Your task to perform on an android device: Search for seafood restaurants on Google Maps Image 0: 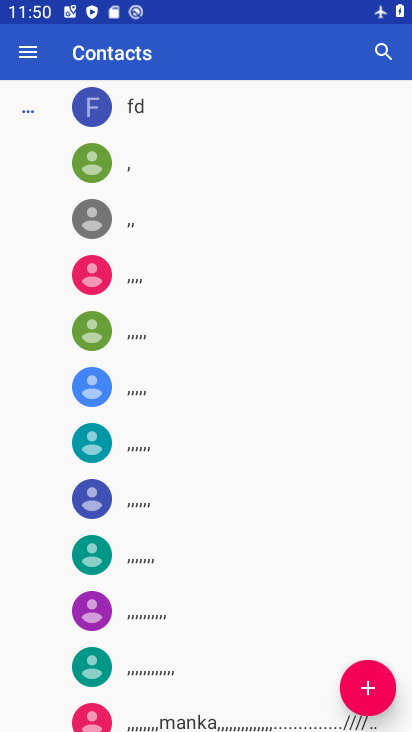
Step 0: press home button
Your task to perform on an android device: Search for seafood restaurants on Google Maps Image 1: 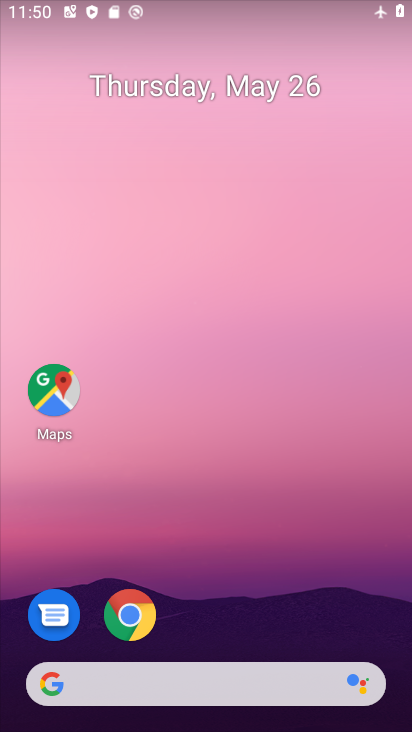
Step 1: click (48, 395)
Your task to perform on an android device: Search for seafood restaurants on Google Maps Image 2: 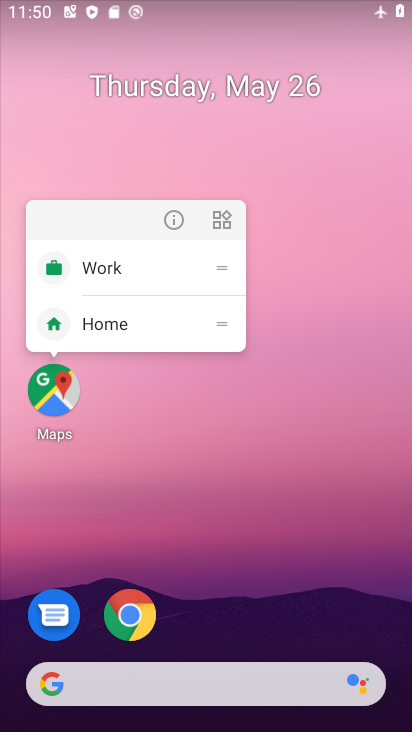
Step 2: click (48, 395)
Your task to perform on an android device: Search for seafood restaurants on Google Maps Image 3: 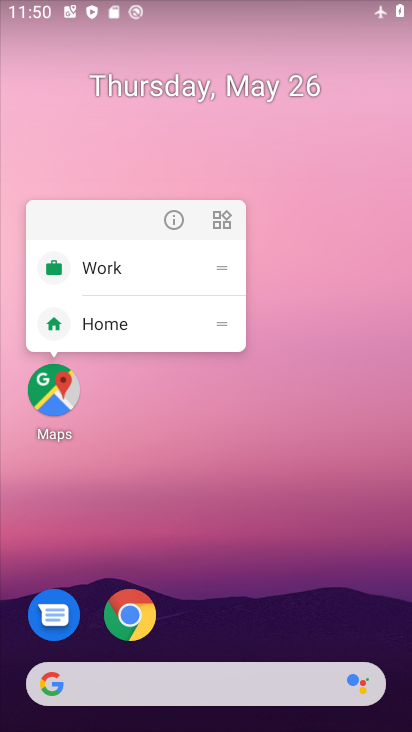
Step 3: click (66, 395)
Your task to perform on an android device: Search for seafood restaurants on Google Maps Image 4: 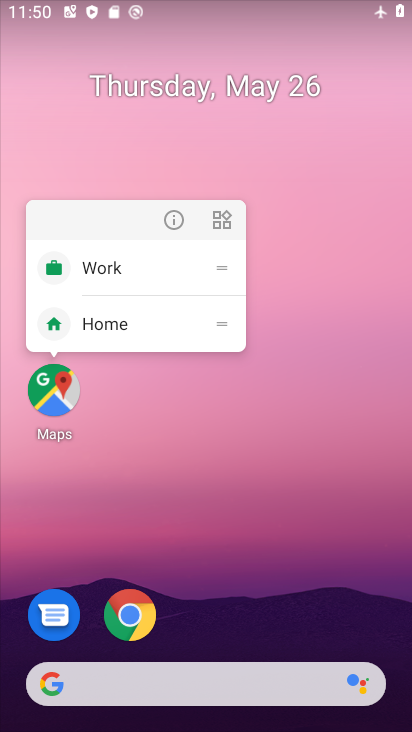
Step 4: click (67, 394)
Your task to perform on an android device: Search for seafood restaurants on Google Maps Image 5: 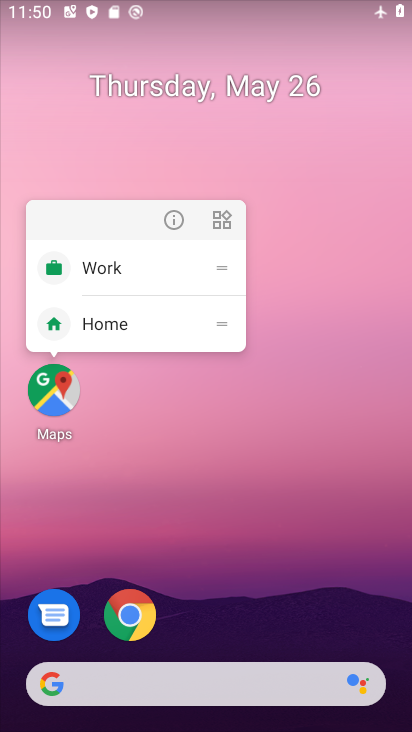
Step 5: click (53, 407)
Your task to perform on an android device: Search for seafood restaurants on Google Maps Image 6: 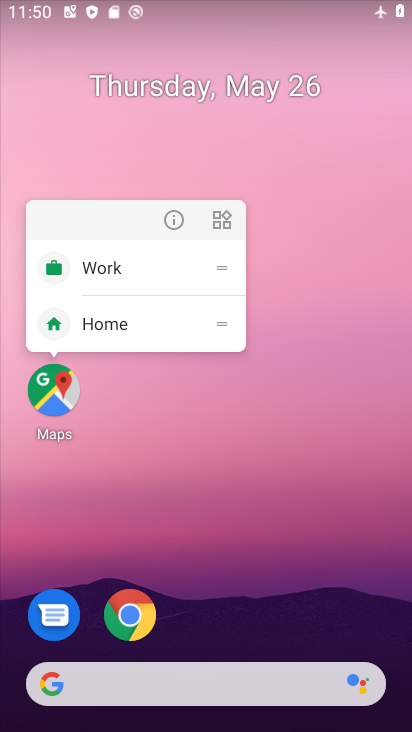
Step 6: click (58, 393)
Your task to perform on an android device: Search for seafood restaurants on Google Maps Image 7: 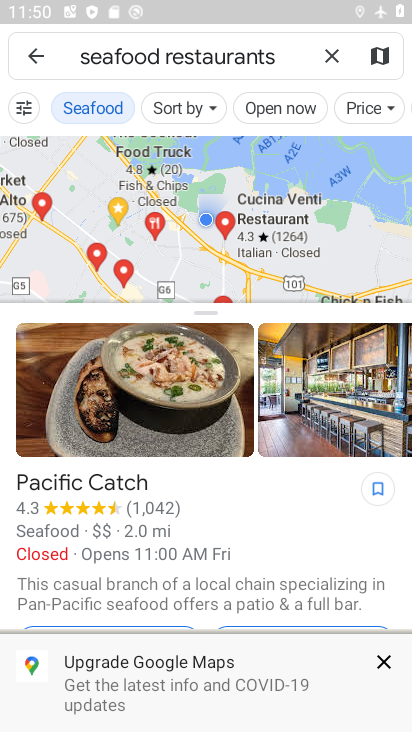
Step 7: task complete